Your task to perform on an android device: turn on improve location accuracy Image 0: 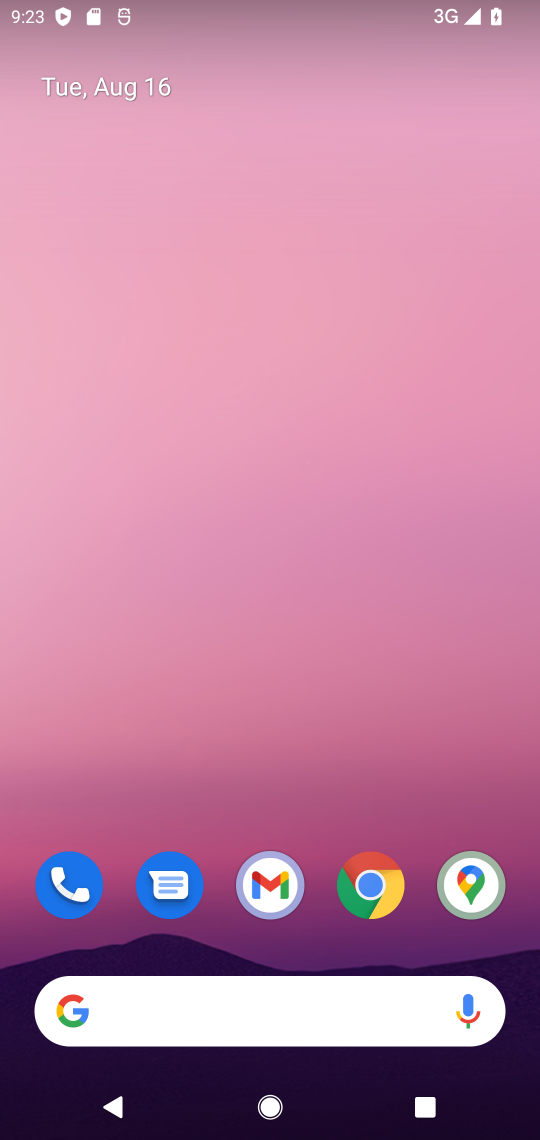
Step 0: drag from (240, 900) to (219, 47)
Your task to perform on an android device: turn on improve location accuracy Image 1: 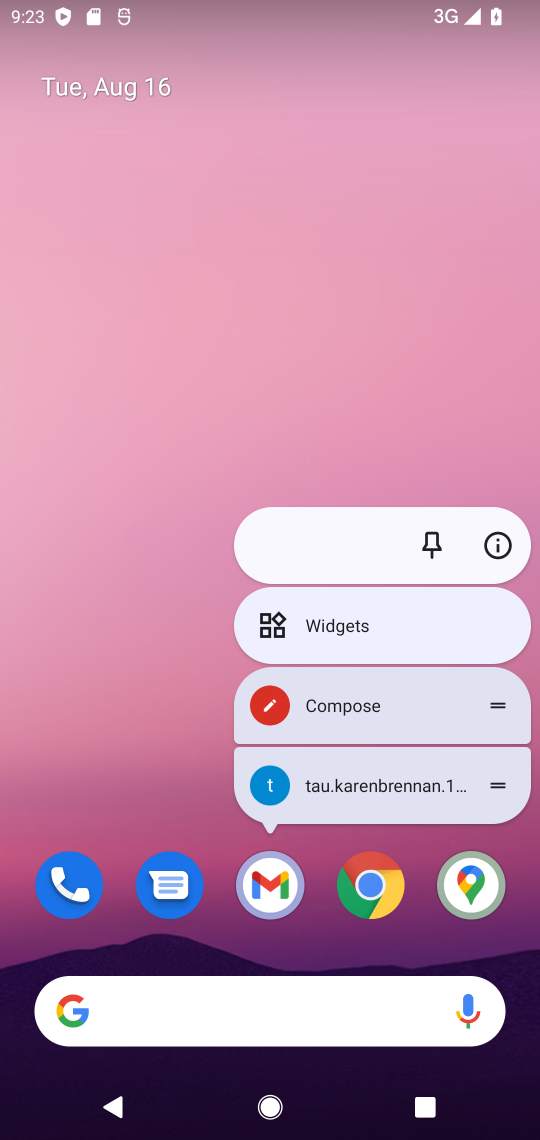
Step 1: click (267, 947)
Your task to perform on an android device: turn on improve location accuracy Image 2: 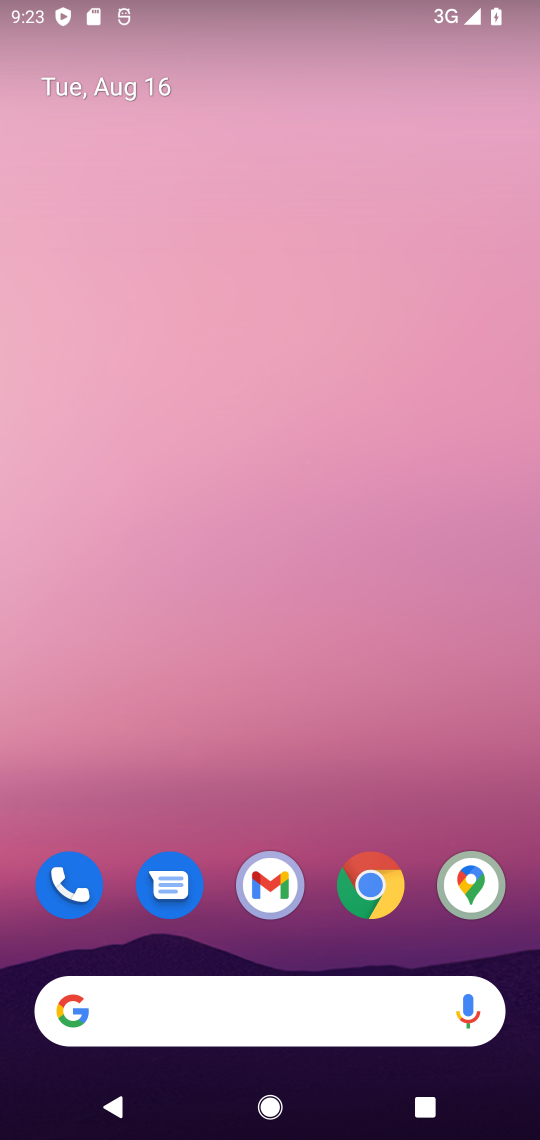
Step 2: drag from (267, 947) to (250, 48)
Your task to perform on an android device: turn on improve location accuracy Image 3: 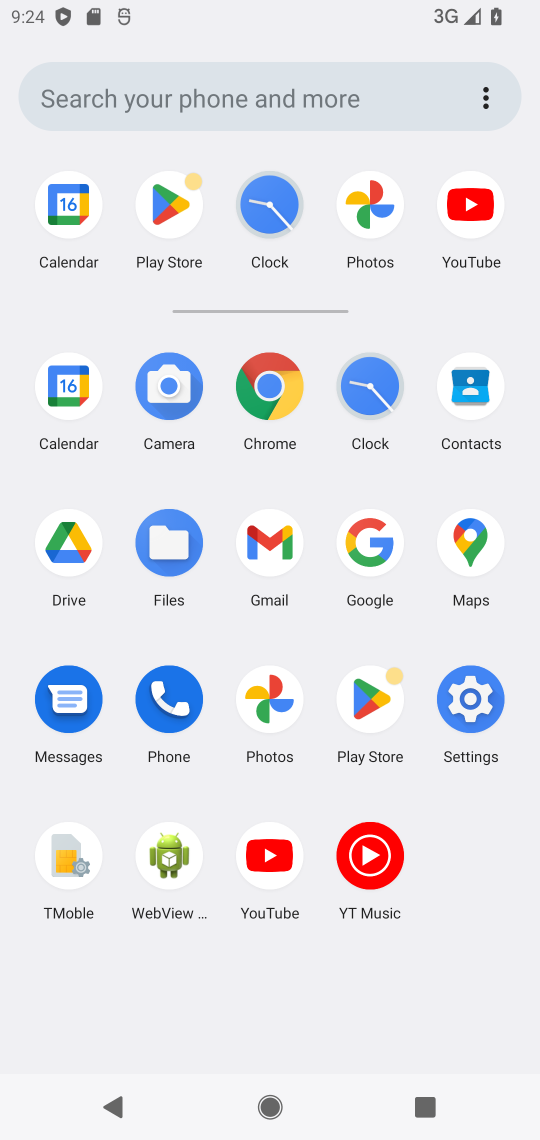
Step 3: click (467, 707)
Your task to perform on an android device: turn on improve location accuracy Image 4: 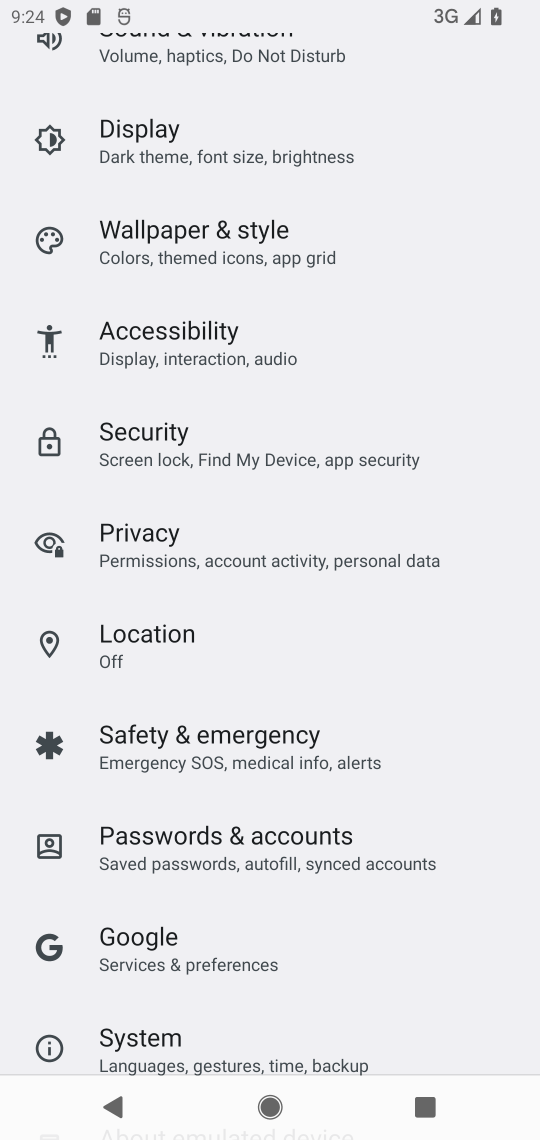
Step 4: click (143, 655)
Your task to perform on an android device: turn on improve location accuracy Image 5: 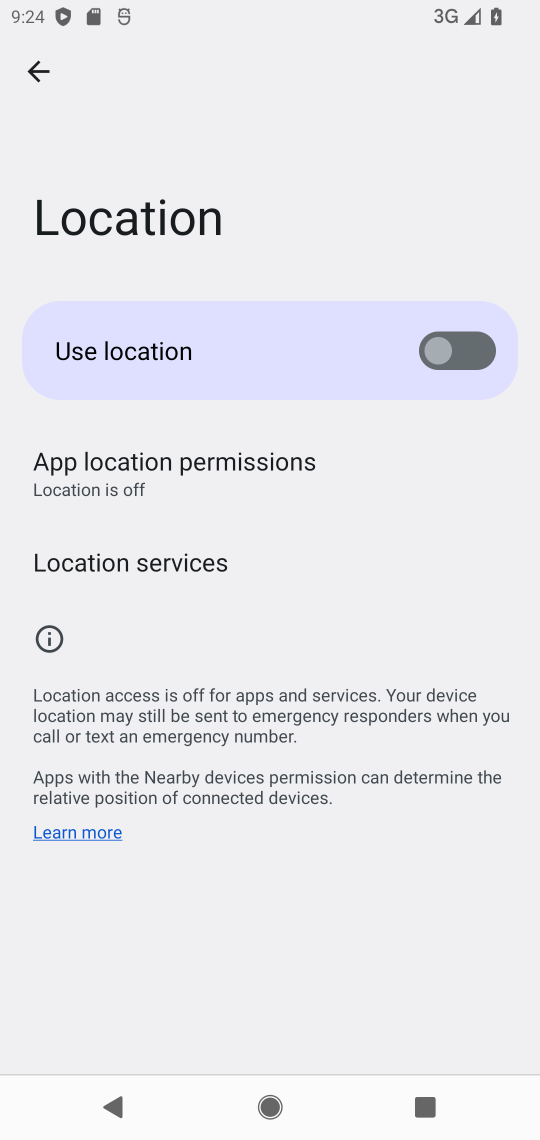
Step 5: click (168, 567)
Your task to perform on an android device: turn on improve location accuracy Image 6: 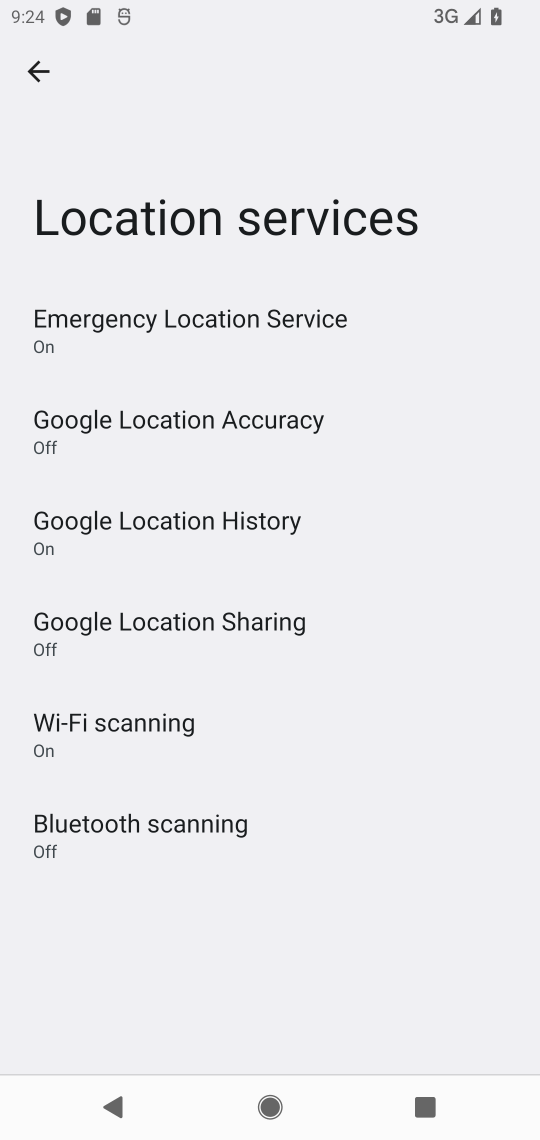
Step 6: click (130, 425)
Your task to perform on an android device: turn on improve location accuracy Image 7: 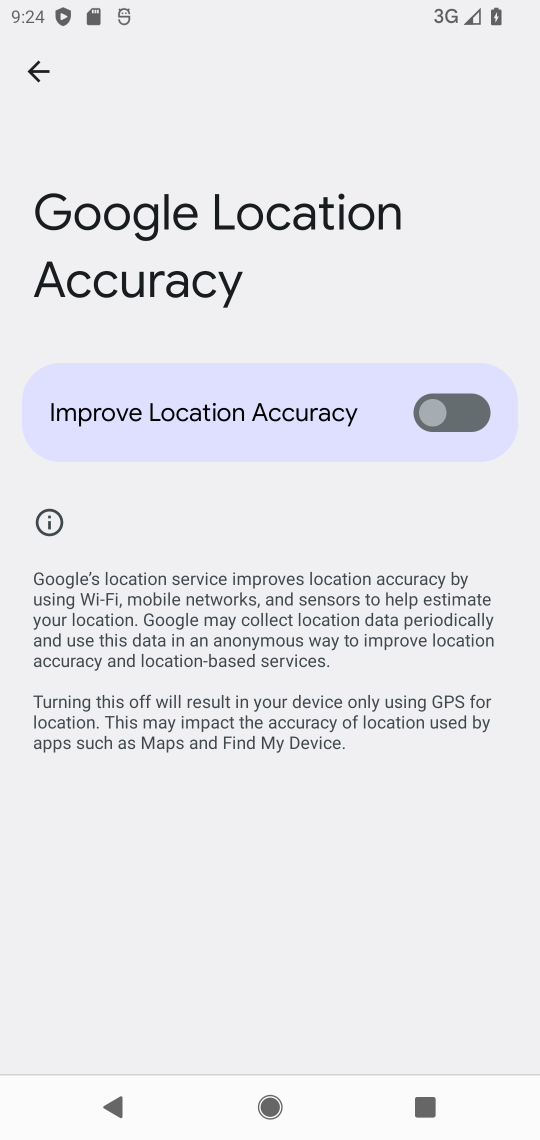
Step 7: click (476, 413)
Your task to perform on an android device: turn on improve location accuracy Image 8: 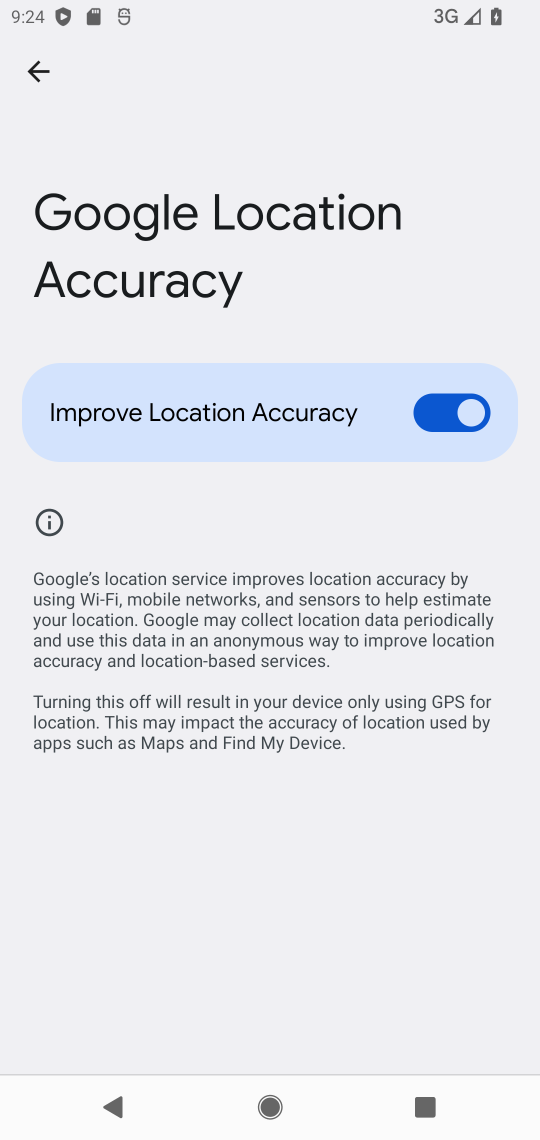
Step 8: task complete